Your task to perform on an android device: turn on showing notifications on the lock screen Image 0: 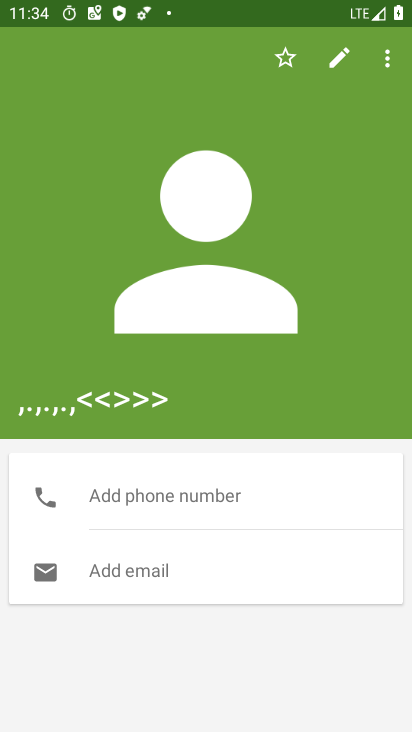
Step 0: press home button
Your task to perform on an android device: turn on showing notifications on the lock screen Image 1: 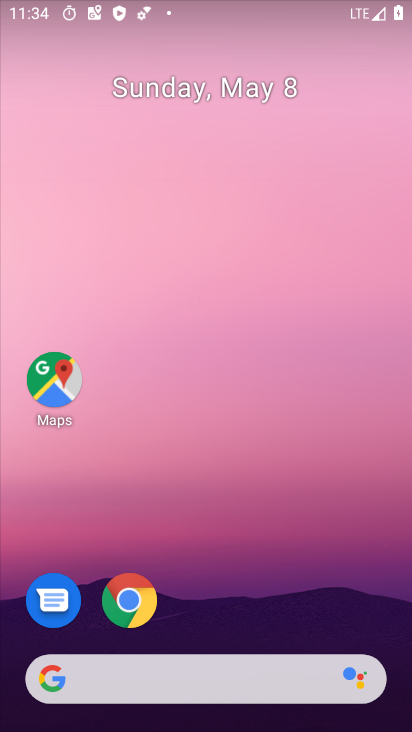
Step 1: drag from (318, 508) to (306, 176)
Your task to perform on an android device: turn on showing notifications on the lock screen Image 2: 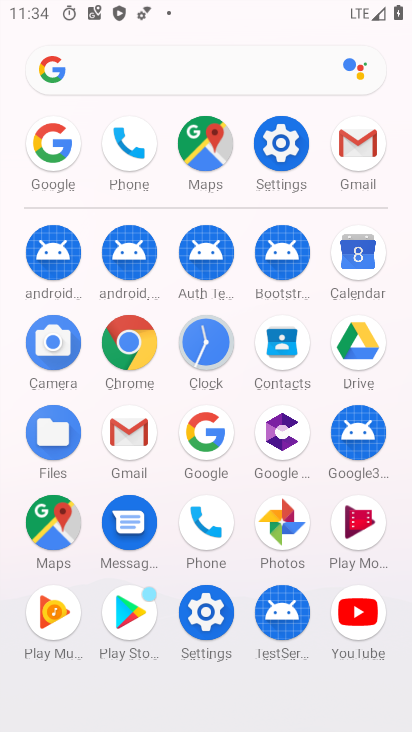
Step 2: click (292, 167)
Your task to perform on an android device: turn on showing notifications on the lock screen Image 3: 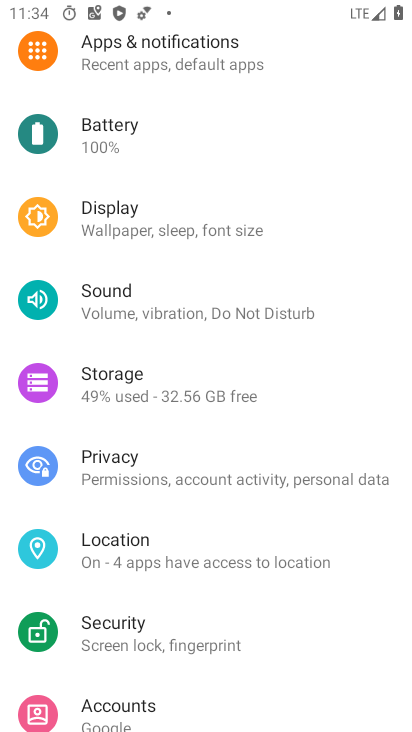
Step 3: drag from (185, 509) to (260, 103)
Your task to perform on an android device: turn on showing notifications on the lock screen Image 4: 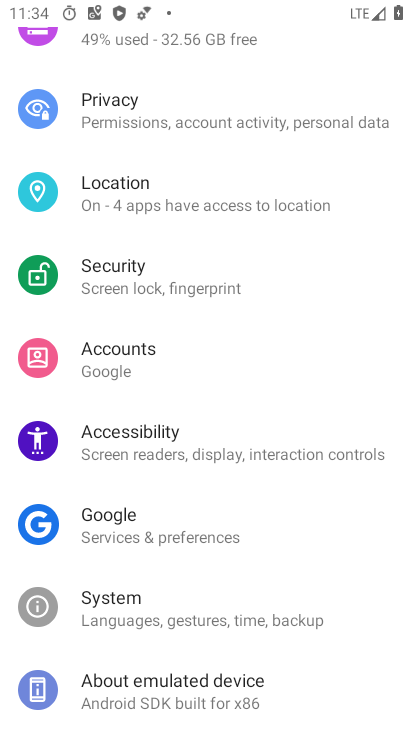
Step 4: drag from (252, 52) to (183, 600)
Your task to perform on an android device: turn on showing notifications on the lock screen Image 5: 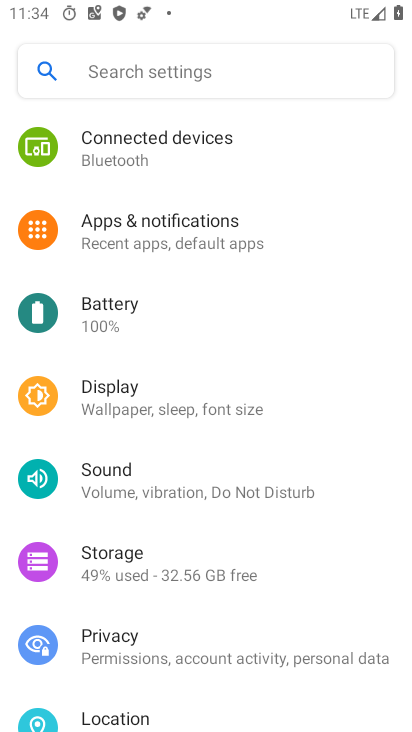
Step 5: drag from (188, 247) to (203, 477)
Your task to perform on an android device: turn on showing notifications on the lock screen Image 6: 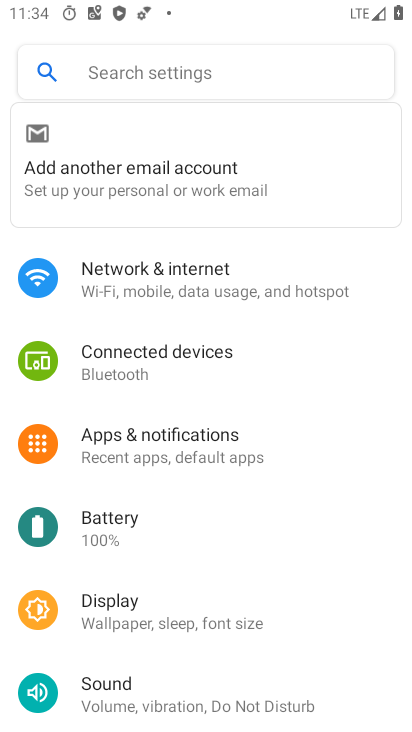
Step 6: click (159, 461)
Your task to perform on an android device: turn on showing notifications on the lock screen Image 7: 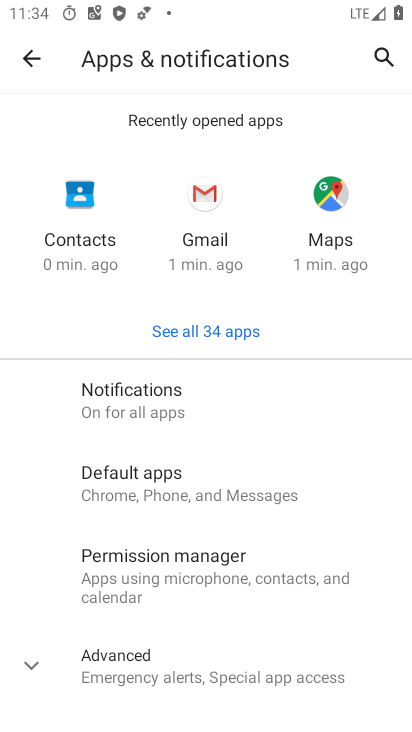
Step 7: click (200, 415)
Your task to perform on an android device: turn on showing notifications on the lock screen Image 8: 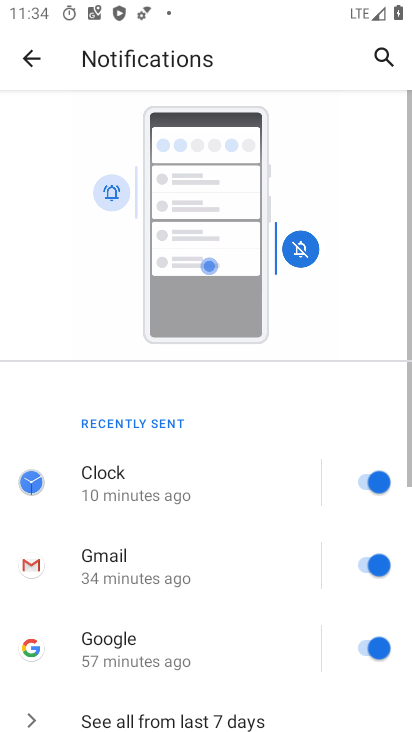
Step 8: drag from (207, 568) to (246, 217)
Your task to perform on an android device: turn on showing notifications on the lock screen Image 9: 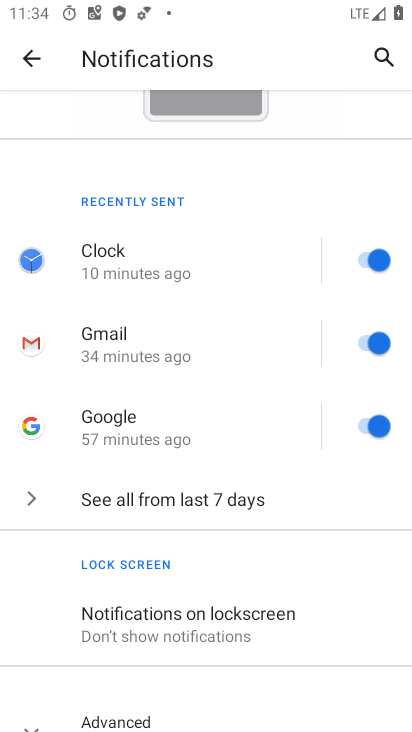
Step 9: click (193, 617)
Your task to perform on an android device: turn on showing notifications on the lock screen Image 10: 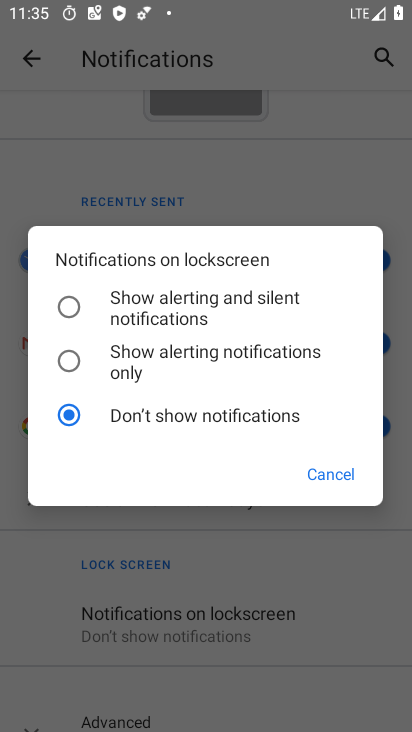
Step 10: click (201, 310)
Your task to perform on an android device: turn on showing notifications on the lock screen Image 11: 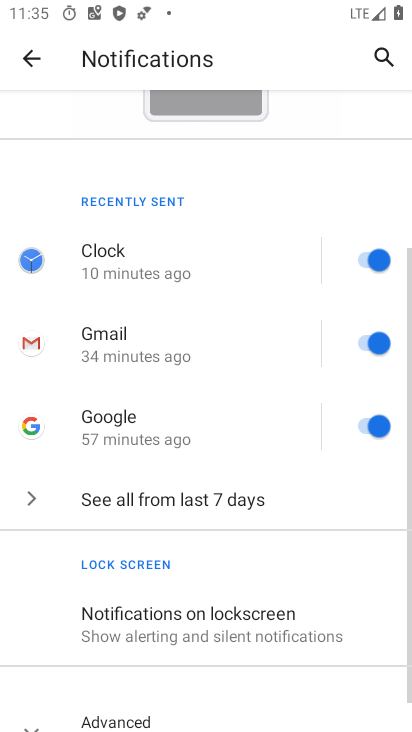
Step 11: task complete